Your task to perform on an android device: turn on notifications settings in the gmail app Image 0: 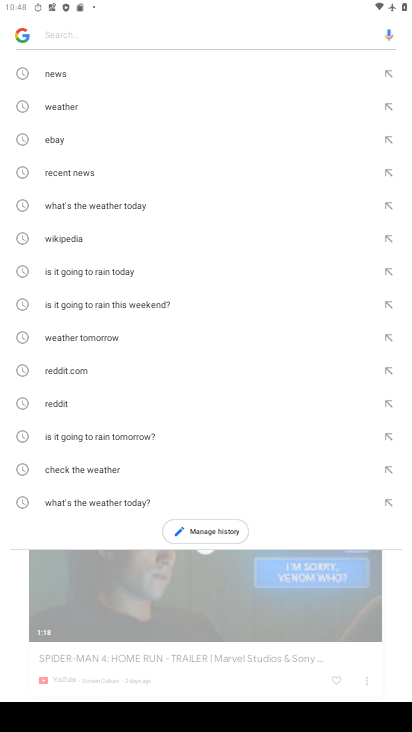
Step 0: press home button
Your task to perform on an android device: turn on notifications settings in the gmail app Image 1: 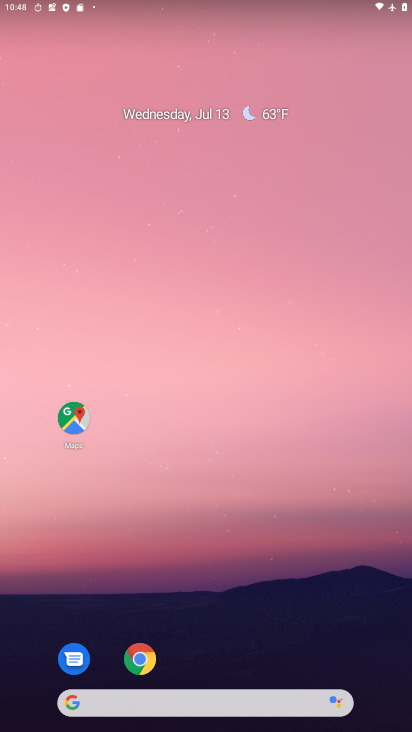
Step 1: drag from (340, 613) to (271, 117)
Your task to perform on an android device: turn on notifications settings in the gmail app Image 2: 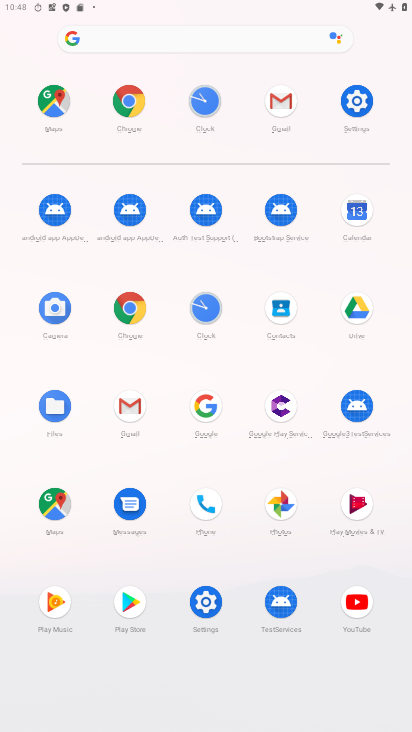
Step 2: click (288, 94)
Your task to perform on an android device: turn on notifications settings in the gmail app Image 3: 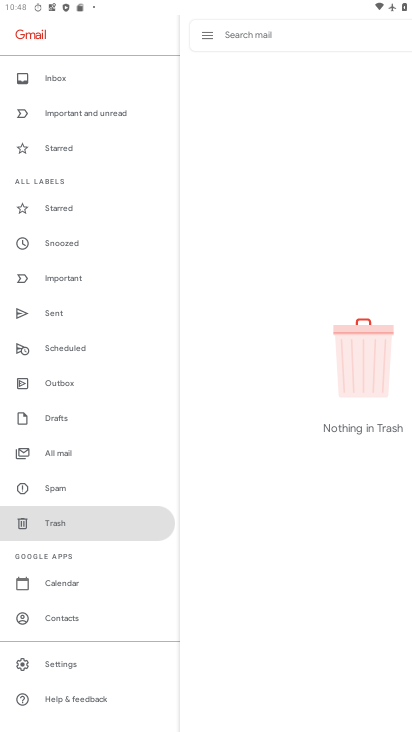
Step 3: click (54, 661)
Your task to perform on an android device: turn on notifications settings in the gmail app Image 4: 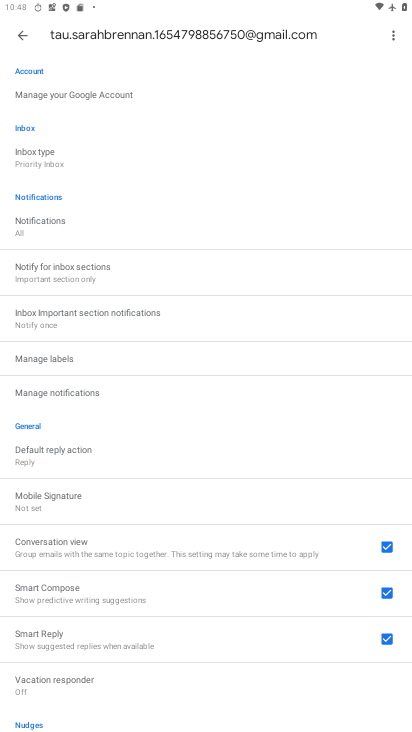
Step 4: click (74, 388)
Your task to perform on an android device: turn on notifications settings in the gmail app Image 5: 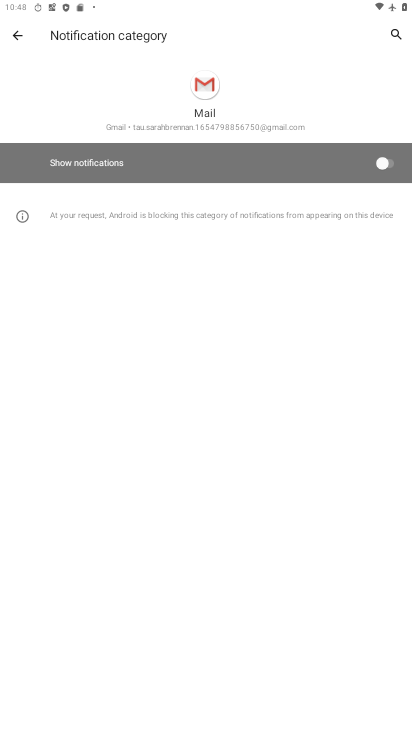
Step 5: click (374, 168)
Your task to perform on an android device: turn on notifications settings in the gmail app Image 6: 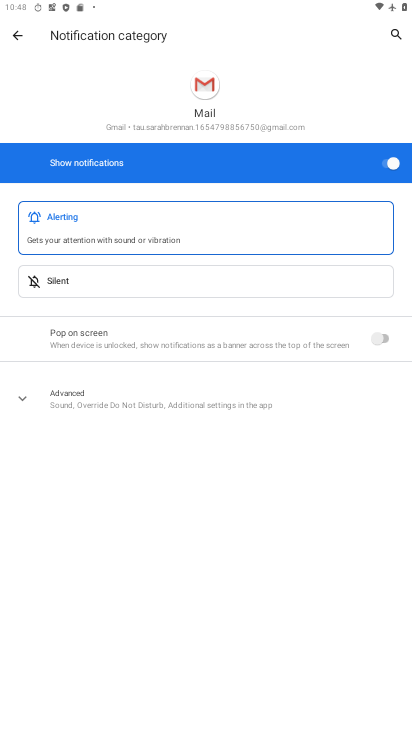
Step 6: task complete